Your task to perform on an android device: What's the weather? Image 0: 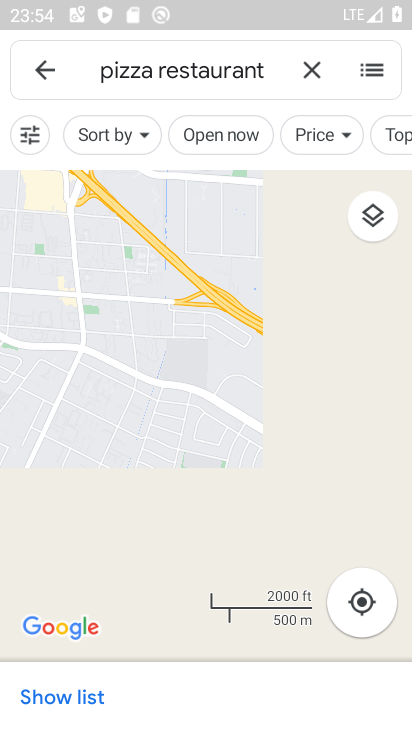
Step 0: press home button
Your task to perform on an android device: What's the weather? Image 1: 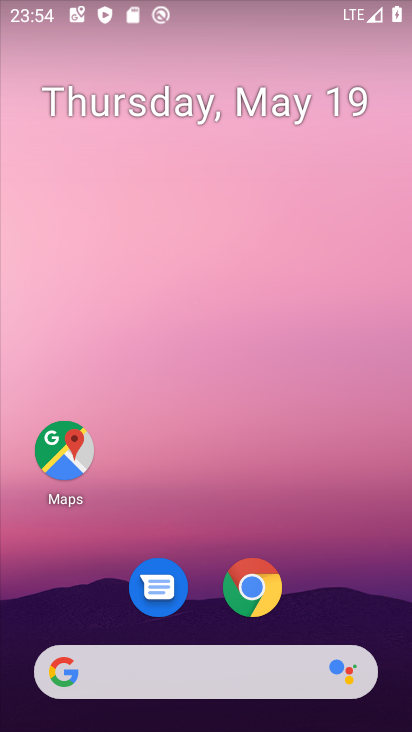
Step 1: drag from (221, 687) to (214, 251)
Your task to perform on an android device: What's the weather? Image 2: 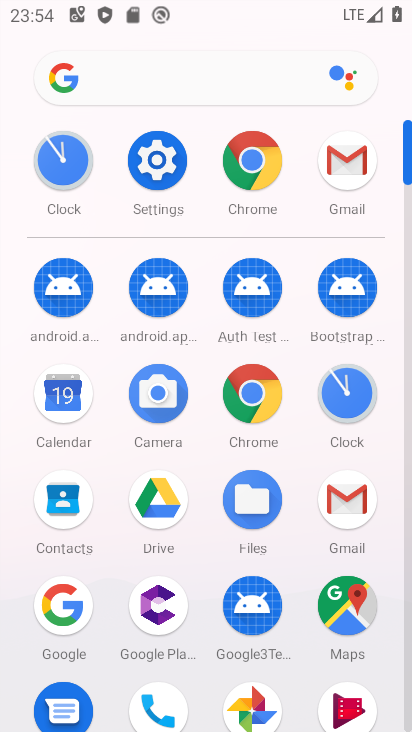
Step 2: click (153, 88)
Your task to perform on an android device: What's the weather? Image 3: 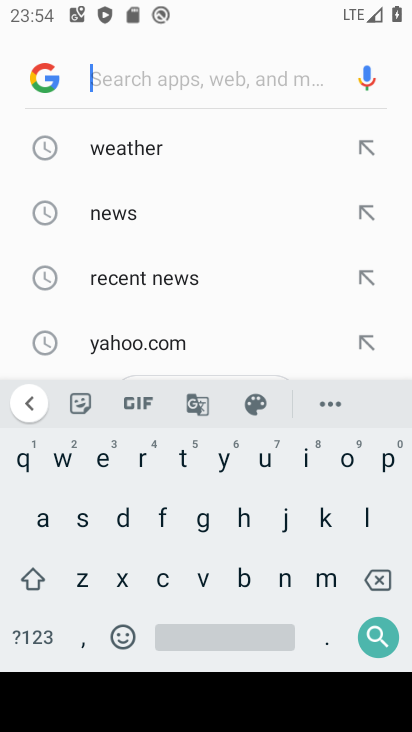
Step 3: click (141, 152)
Your task to perform on an android device: What's the weather? Image 4: 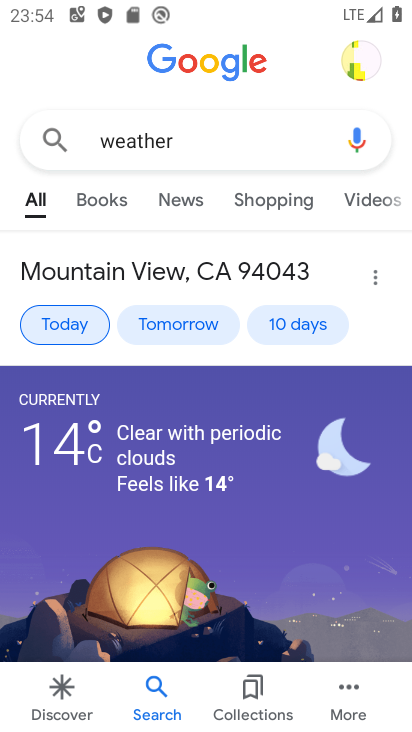
Step 4: task complete